Your task to perform on an android device: turn smart compose on in the gmail app Image 0: 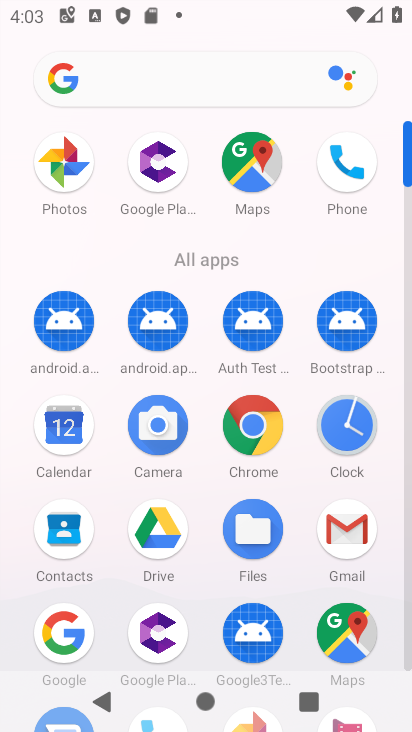
Step 0: click (352, 528)
Your task to perform on an android device: turn smart compose on in the gmail app Image 1: 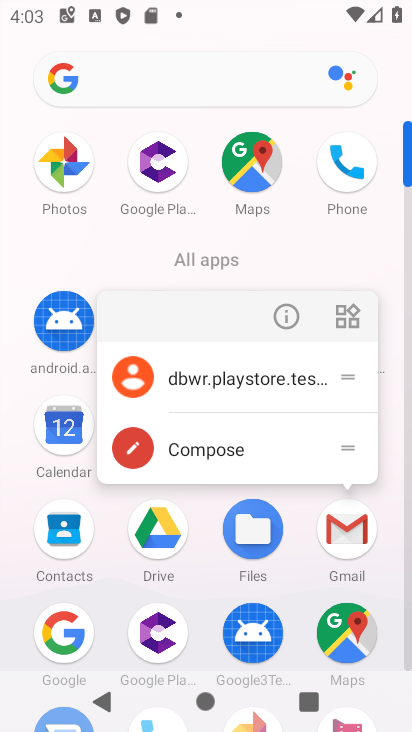
Step 1: click (348, 524)
Your task to perform on an android device: turn smart compose on in the gmail app Image 2: 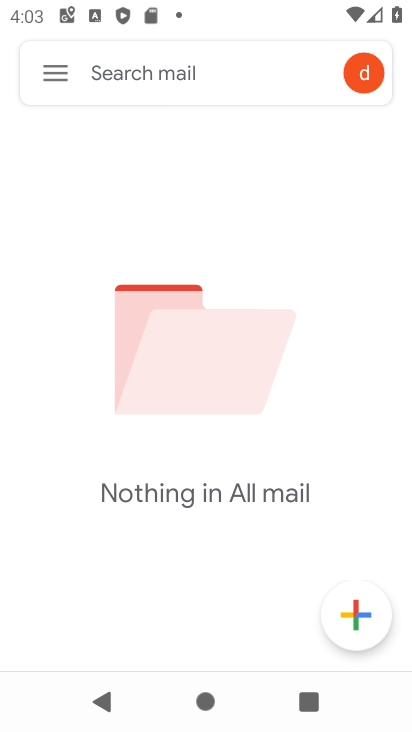
Step 2: click (52, 62)
Your task to perform on an android device: turn smart compose on in the gmail app Image 3: 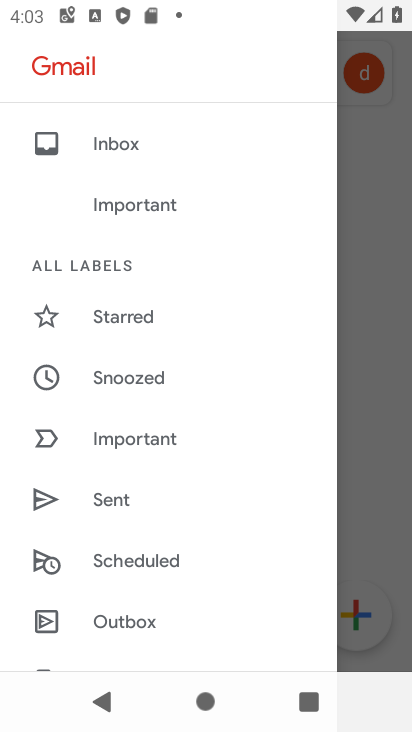
Step 3: drag from (163, 485) to (191, 89)
Your task to perform on an android device: turn smart compose on in the gmail app Image 4: 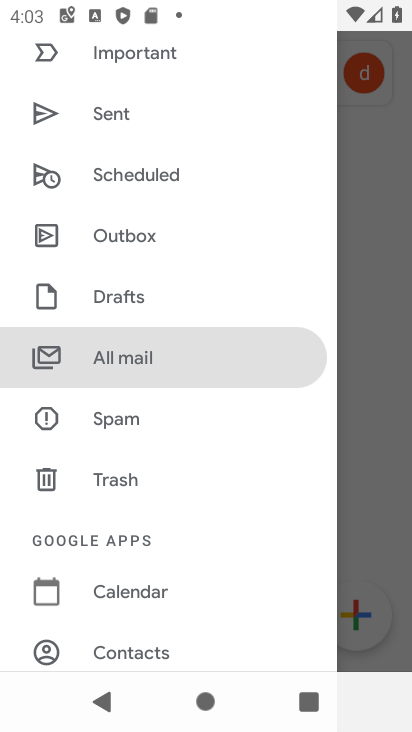
Step 4: drag from (171, 596) to (206, 356)
Your task to perform on an android device: turn smart compose on in the gmail app Image 5: 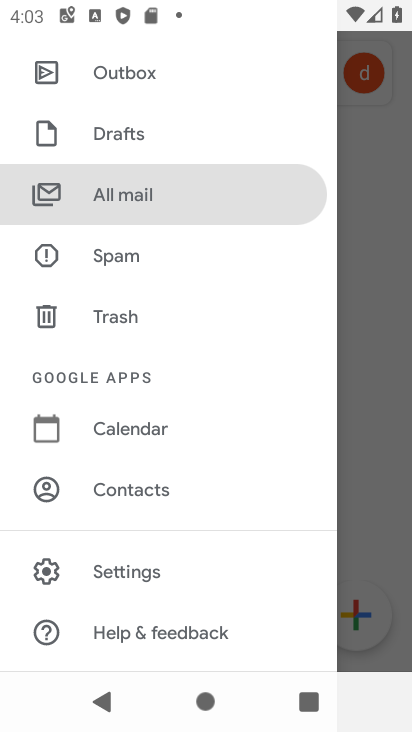
Step 5: click (156, 564)
Your task to perform on an android device: turn smart compose on in the gmail app Image 6: 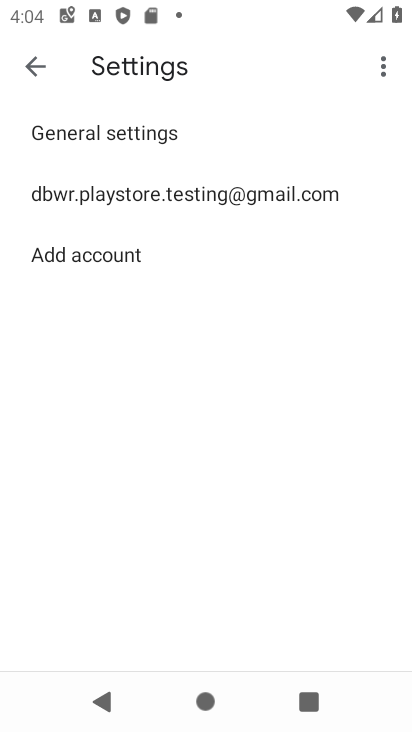
Step 6: click (160, 188)
Your task to perform on an android device: turn smart compose on in the gmail app Image 7: 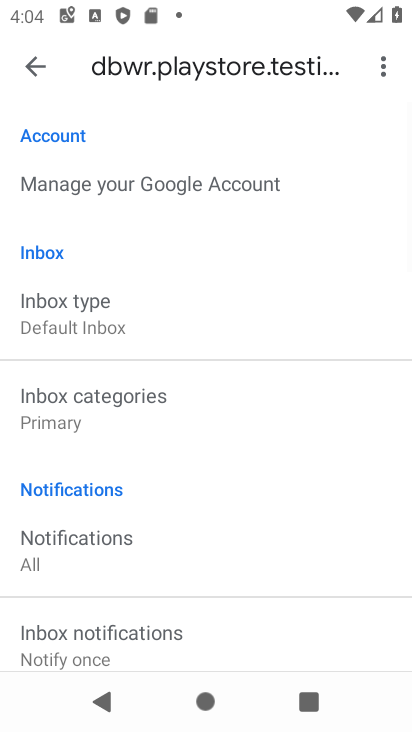
Step 7: task complete